Your task to perform on an android device: Go to Android settings Image 0: 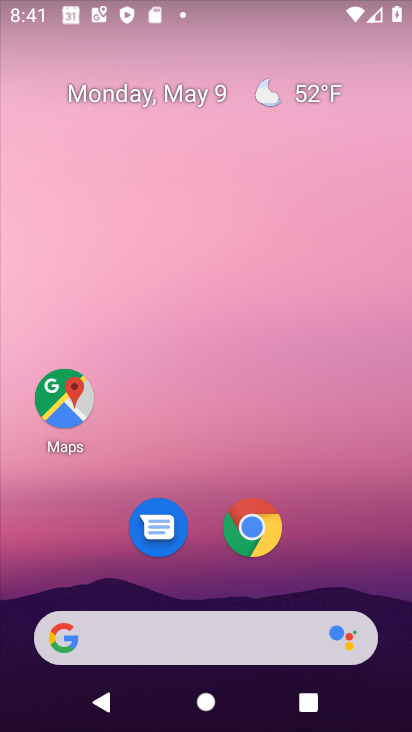
Step 0: drag from (202, 573) to (203, 1)
Your task to perform on an android device: Go to Android settings Image 1: 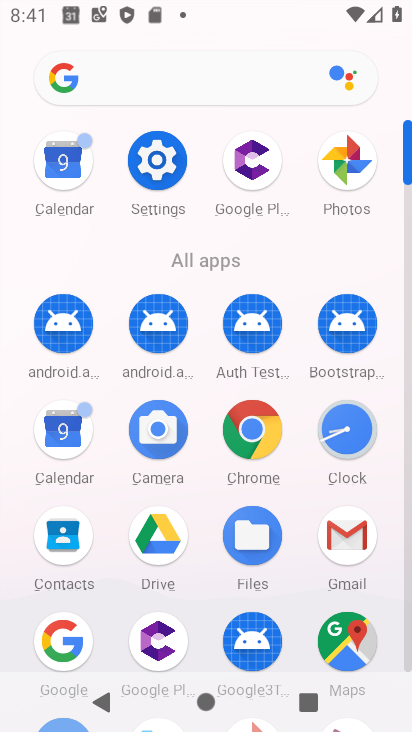
Step 1: click (157, 153)
Your task to perform on an android device: Go to Android settings Image 2: 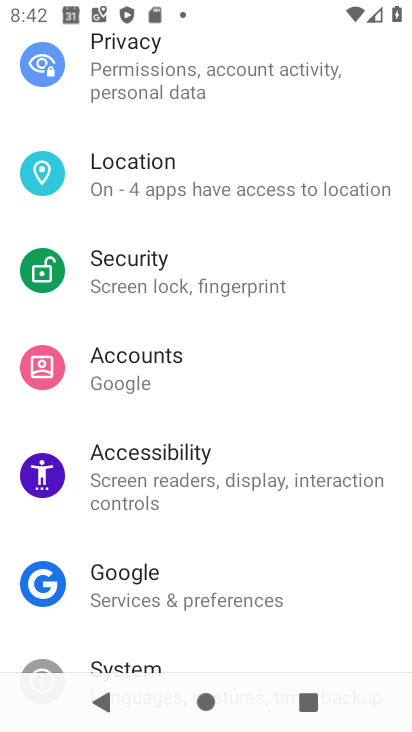
Step 2: task complete